Your task to perform on an android device: Do I have any events today? Image 0: 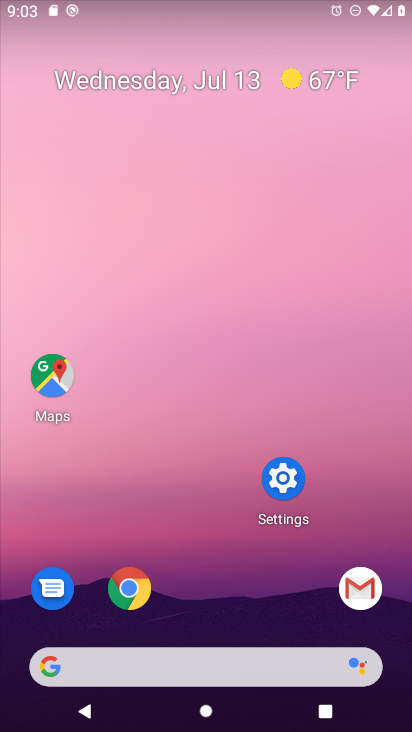
Step 0: drag from (217, 671) to (402, 131)
Your task to perform on an android device: Do I have any events today? Image 1: 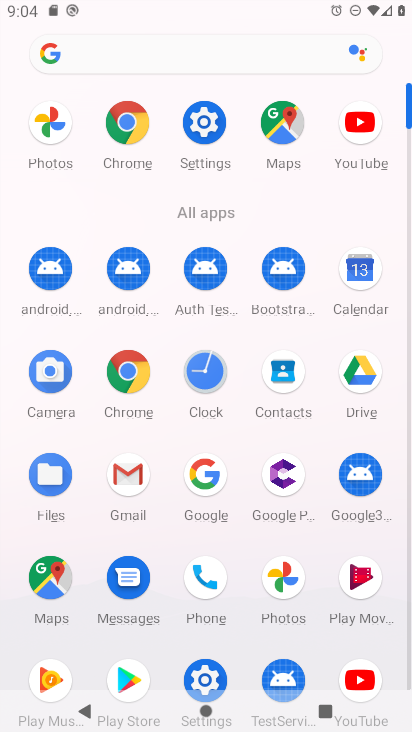
Step 1: click (344, 279)
Your task to perform on an android device: Do I have any events today? Image 2: 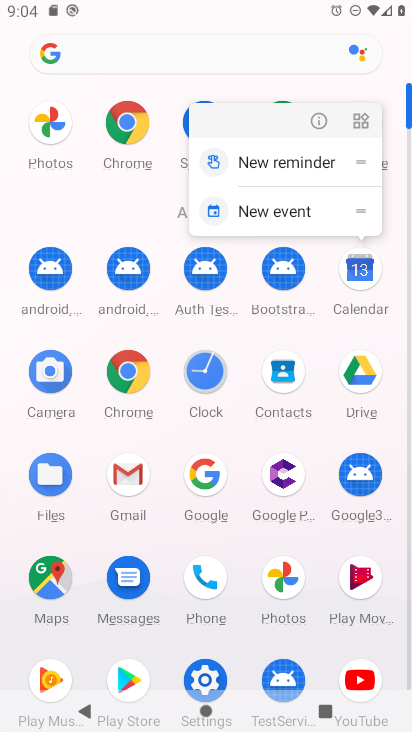
Step 2: click (354, 278)
Your task to perform on an android device: Do I have any events today? Image 3: 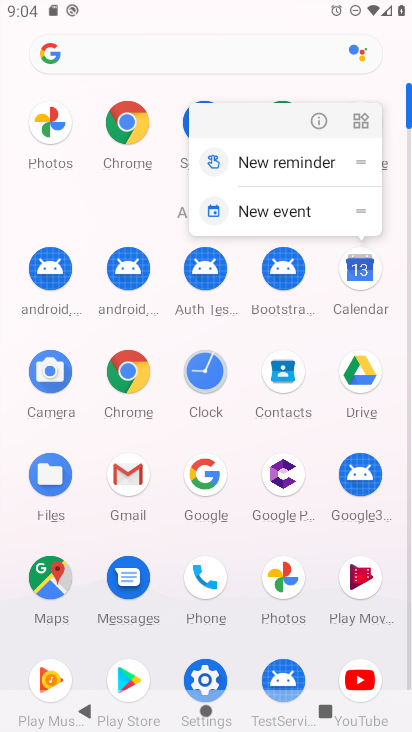
Step 3: click (348, 279)
Your task to perform on an android device: Do I have any events today? Image 4: 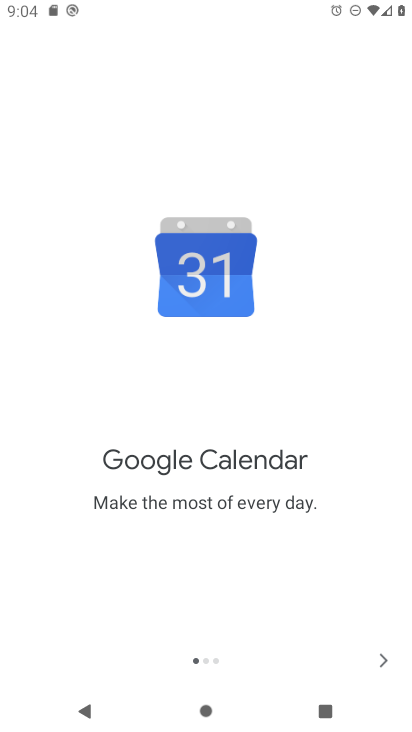
Step 4: click (357, 658)
Your task to perform on an android device: Do I have any events today? Image 5: 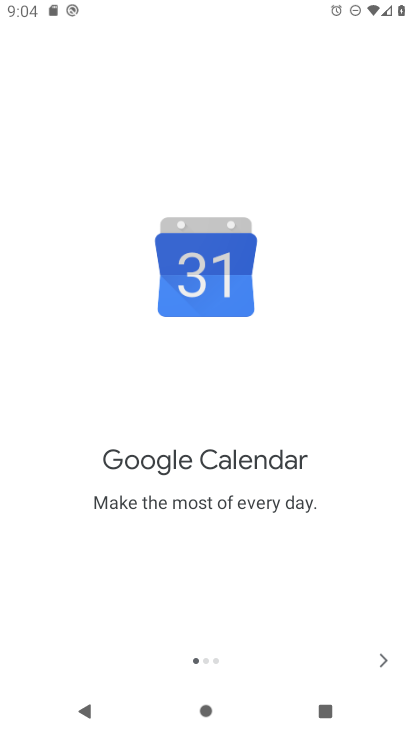
Step 5: click (388, 662)
Your task to perform on an android device: Do I have any events today? Image 6: 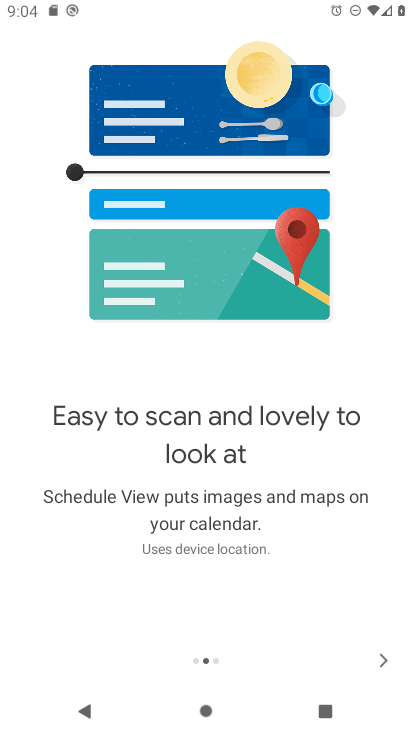
Step 6: click (388, 662)
Your task to perform on an android device: Do I have any events today? Image 7: 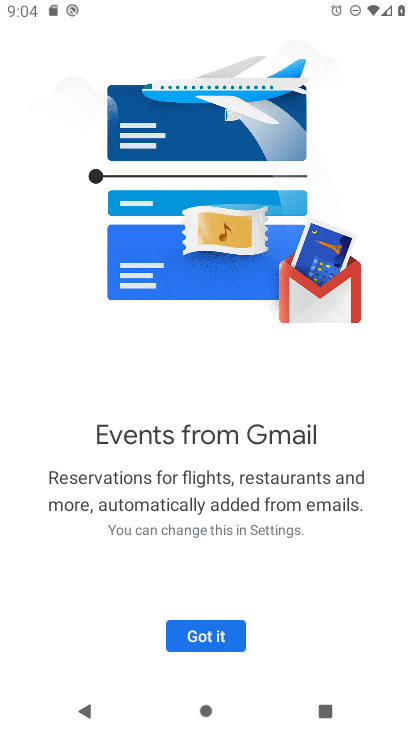
Step 7: click (197, 635)
Your task to perform on an android device: Do I have any events today? Image 8: 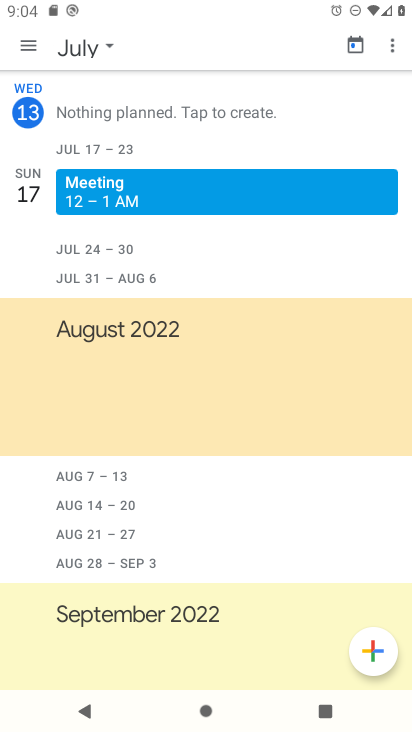
Step 8: click (23, 51)
Your task to perform on an android device: Do I have any events today? Image 9: 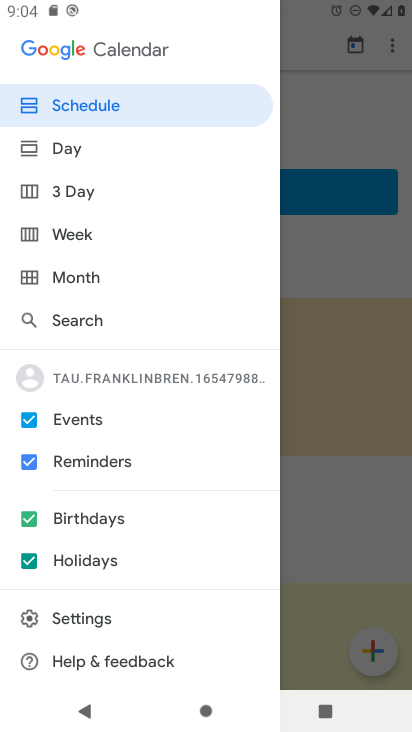
Step 9: click (62, 273)
Your task to perform on an android device: Do I have any events today? Image 10: 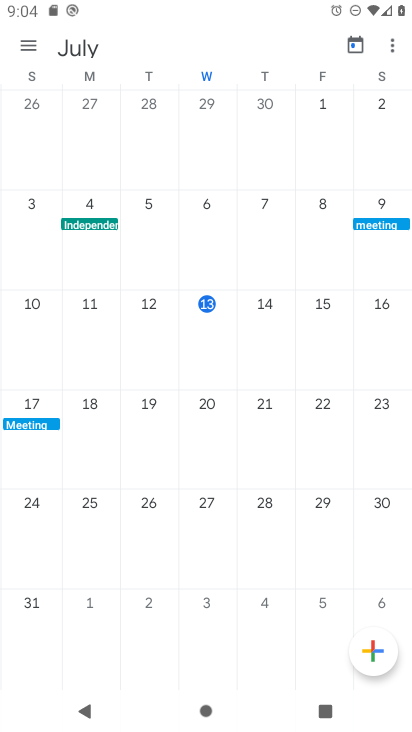
Step 10: click (204, 327)
Your task to perform on an android device: Do I have any events today? Image 11: 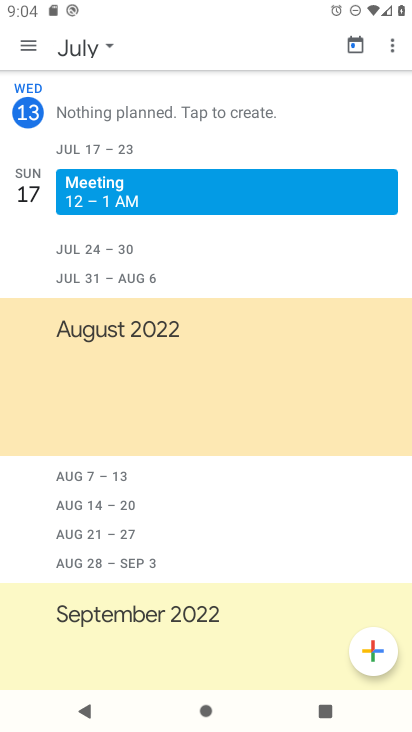
Step 11: task complete